Your task to perform on an android device: uninstall "Booking.com: Hotels and more" Image 0: 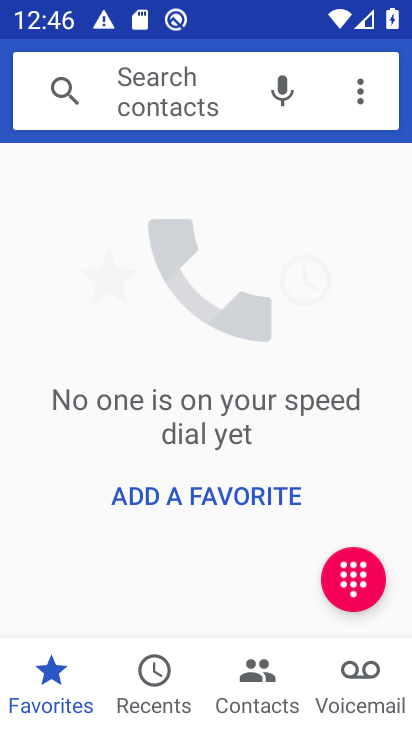
Step 0: press home button
Your task to perform on an android device: uninstall "Booking.com: Hotels and more" Image 1: 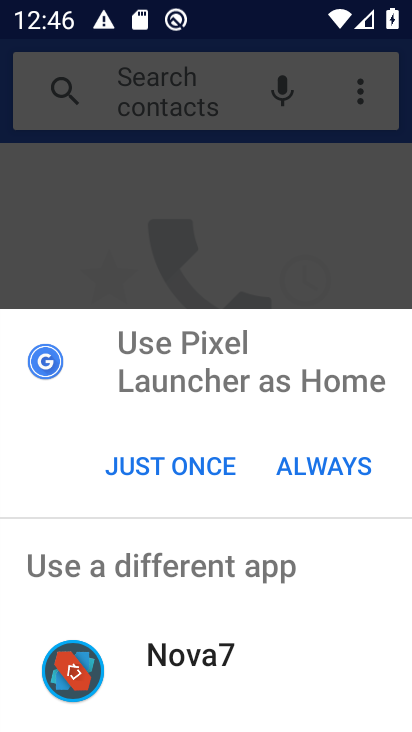
Step 1: press home button
Your task to perform on an android device: uninstall "Booking.com: Hotels and more" Image 2: 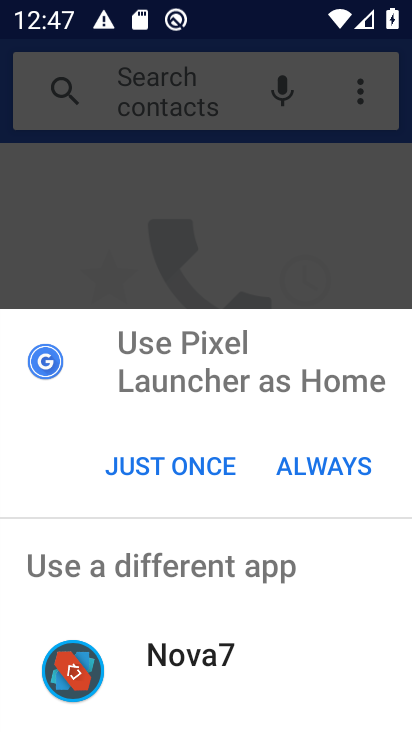
Step 2: press back button
Your task to perform on an android device: uninstall "Booking.com: Hotels and more" Image 3: 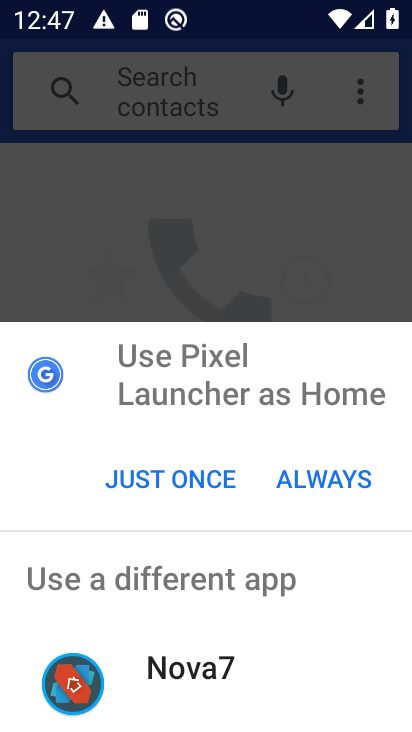
Step 3: press back button
Your task to perform on an android device: uninstall "Booking.com: Hotels and more" Image 4: 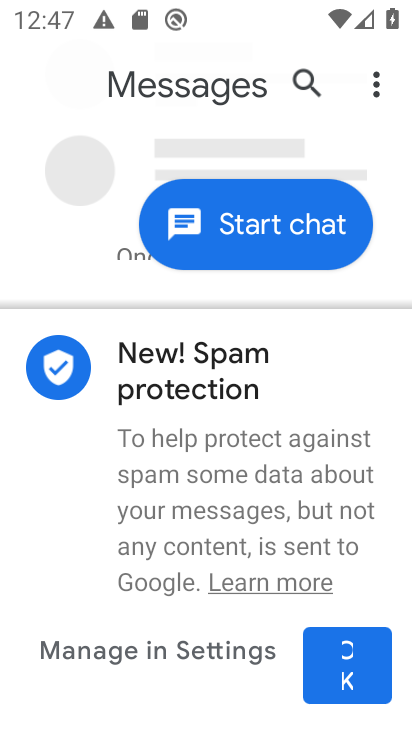
Step 4: press home button
Your task to perform on an android device: uninstall "Booking.com: Hotels and more" Image 5: 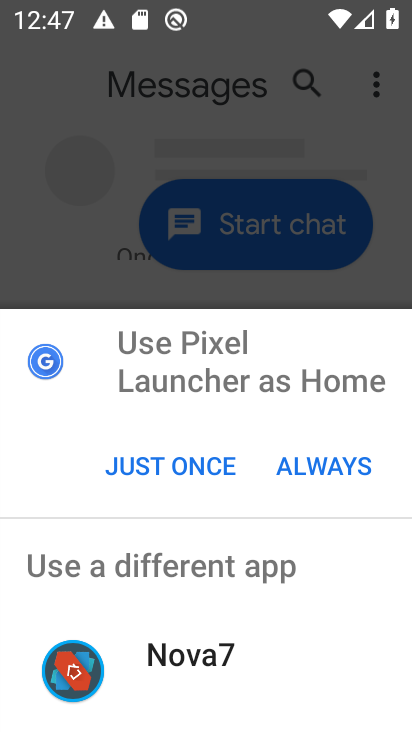
Step 5: press home button
Your task to perform on an android device: uninstall "Booking.com: Hotels and more" Image 6: 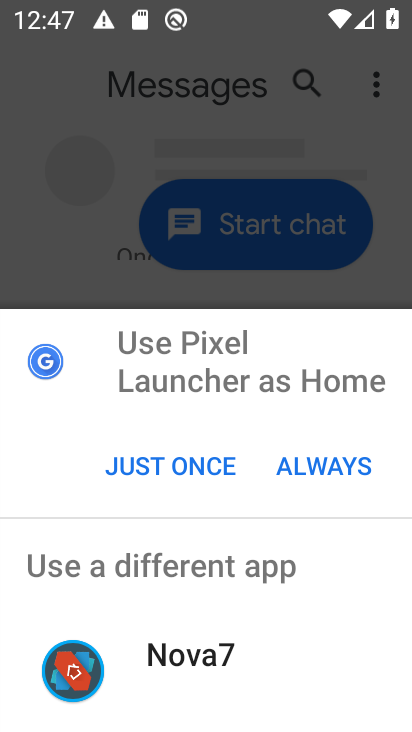
Step 6: press home button
Your task to perform on an android device: uninstall "Booking.com: Hotels and more" Image 7: 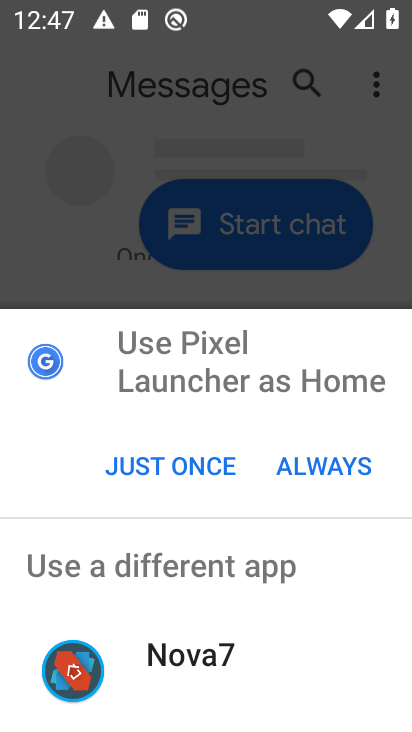
Step 7: click (139, 473)
Your task to perform on an android device: uninstall "Booking.com: Hotels and more" Image 8: 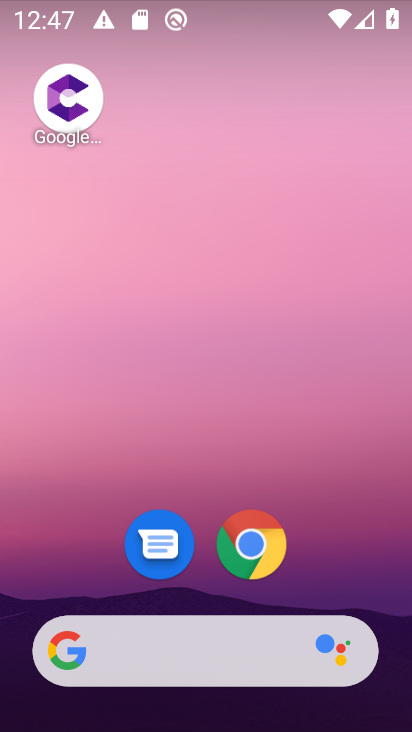
Step 8: drag from (392, 573) to (294, 1)
Your task to perform on an android device: uninstall "Booking.com: Hotels and more" Image 9: 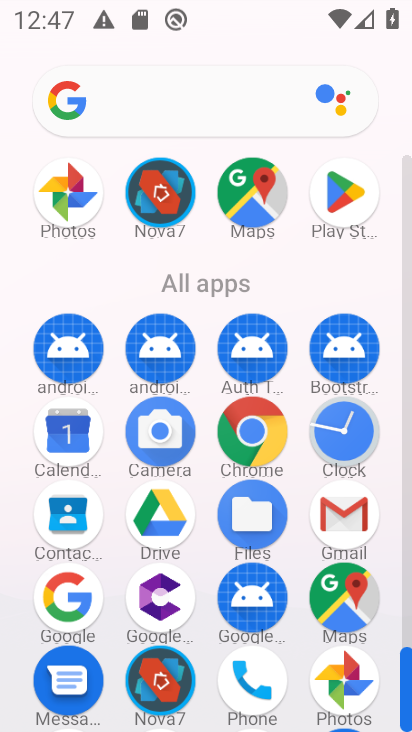
Step 9: click (339, 177)
Your task to perform on an android device: uninstall "Booking.com: Hotels and more" Image 10: 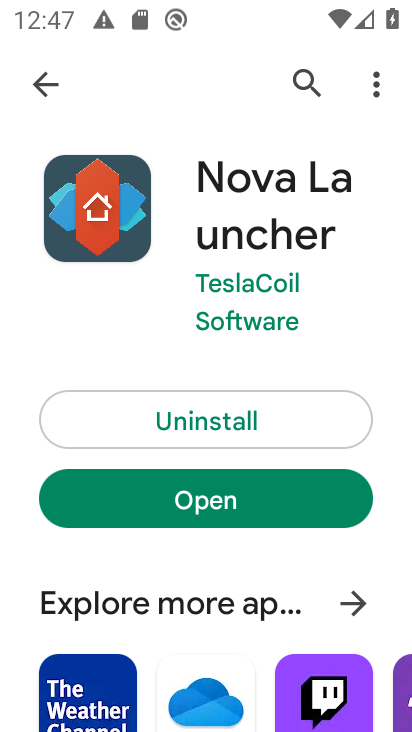
Step 10: press back button
Your task to perform on an android device: uninstall "Booking.com: Hotels and more" Image 11: 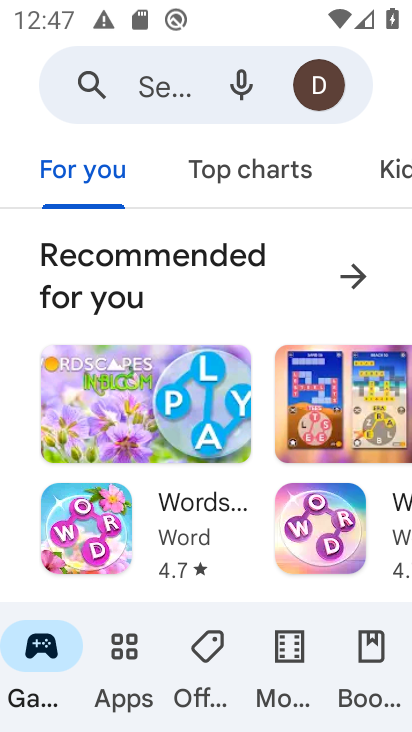
Step 11: click (155, 80)
Your task to perform on an android device: uninstall "Booking.com: Hotels and more" Image 12: 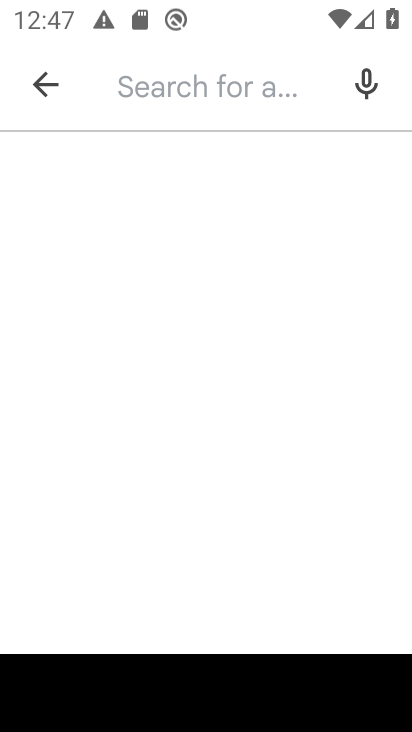
Step 12: type "Booking.com: Hotels and more"
Your task to perform on an android device: uninstall "Booking.com: Hotels and more" Image 13: 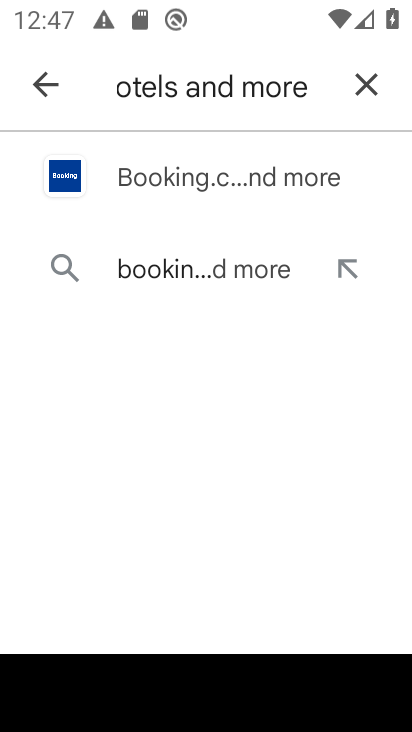
Step 13: click (156, 186)
Your task to perform on an android device: uninstall "Booking.com: Hotels and more" Image 14: 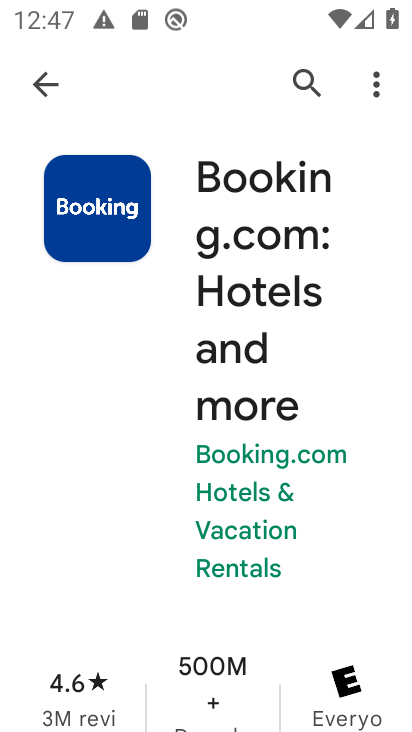
Step 14: task complete